Your task to perform on an android device: Open the Play Movies app and select the watchlist tab. Image 0: 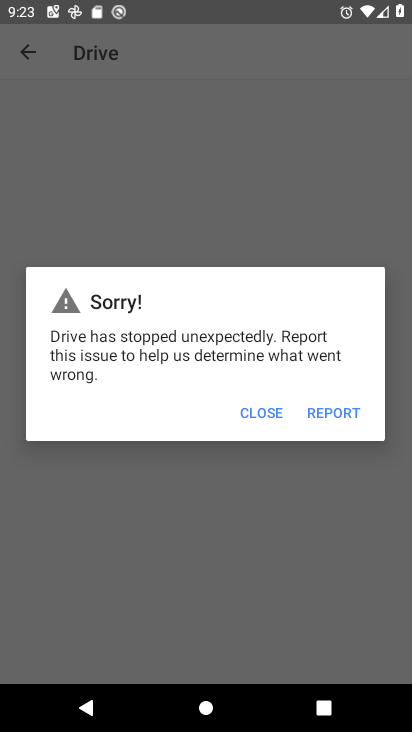
Step 0: press home button
Your task to perform on an android device: Open the Play Movies app and select the watchlist tab. Image 1: 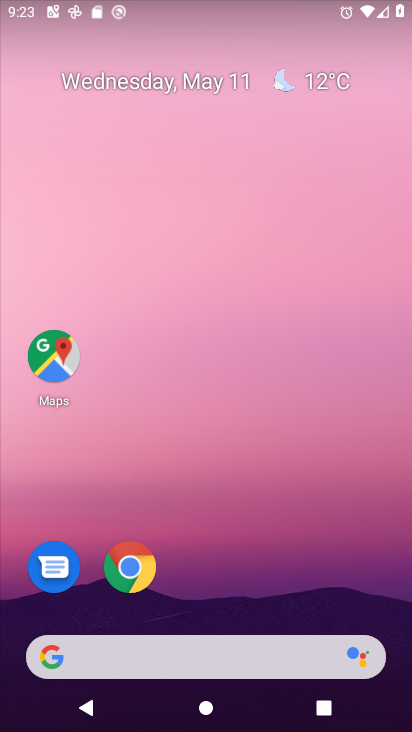
Step 1: drag from (229, 574) to (153, 85)
Your task to perform on an android device: Open the Play Movies app and select the watchlist tab. Image 2: 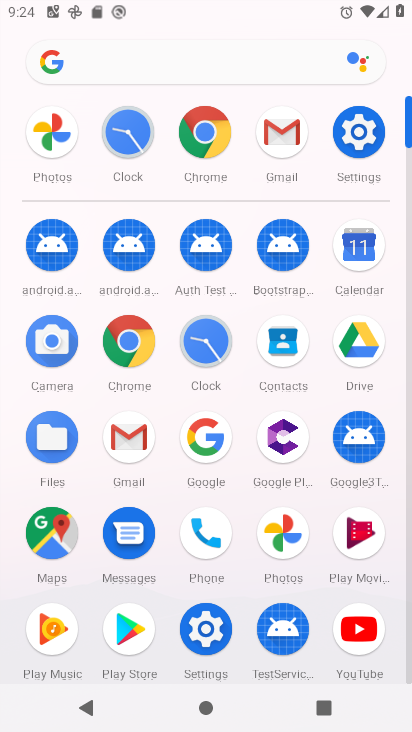
Step 2: click (354, 539)
Your task to perform on an android device: Open the Play Movies app and select the watchlist tab. Image 3: 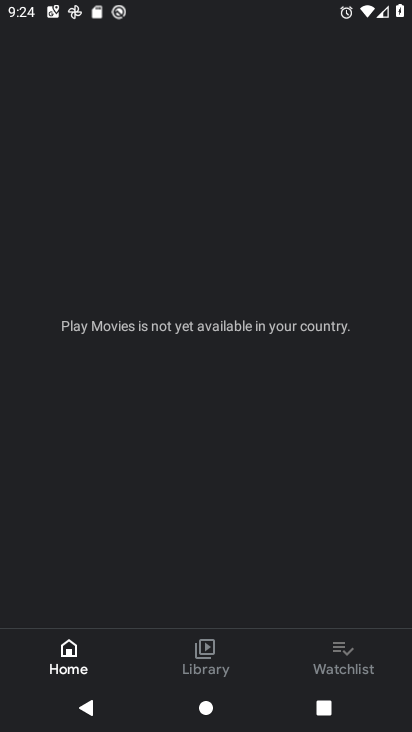
Step 3: click (351, 655)
Your task to perform on an android device: Open the Play Movies app and select the watchlist tab. Image 4: 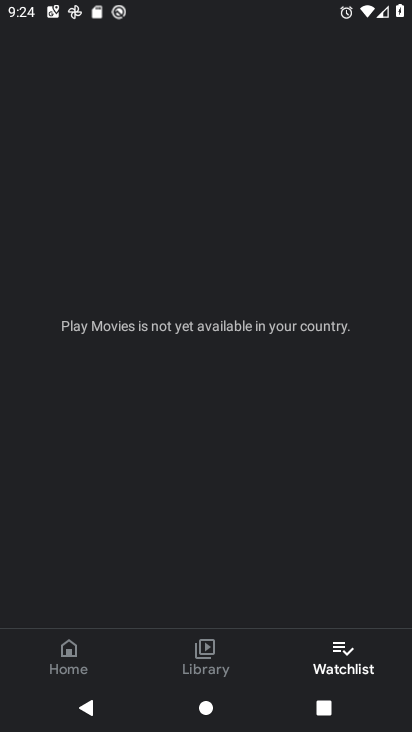
Step 4: task complete